Your task to perform on an android device: change timer sound Image 0: 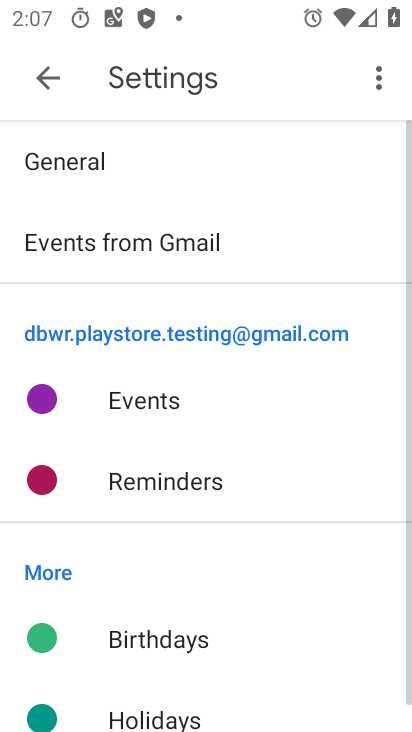
Step 0: press back button
Your task to perform on an android device: change timer sound Image 1: 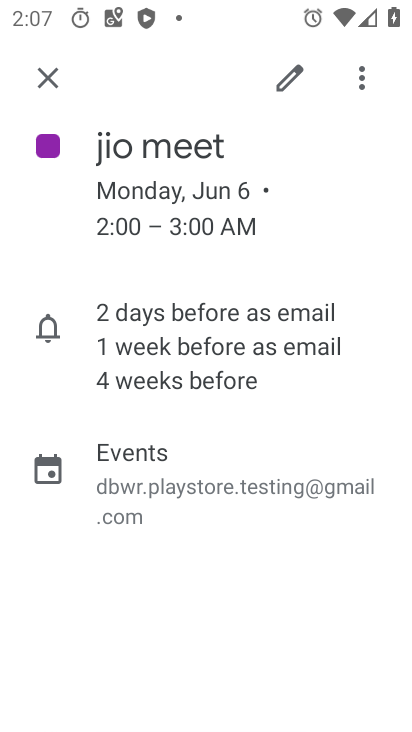
Step 1: press back button
Your task to perform on an android device: change timer sound Image 2: 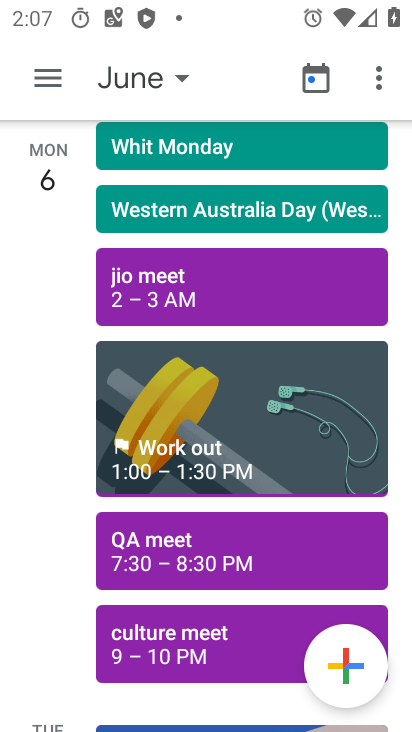
Step 2: press home button
Your task to perform on an android device: change timer sound Image 3: 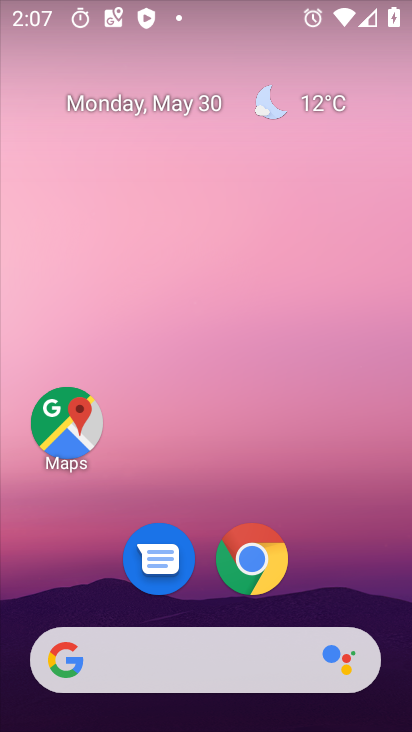
Step 3: drag from (218, 443) to (331, 19)
Your task to perform on an android device: change timer sound Image 4: 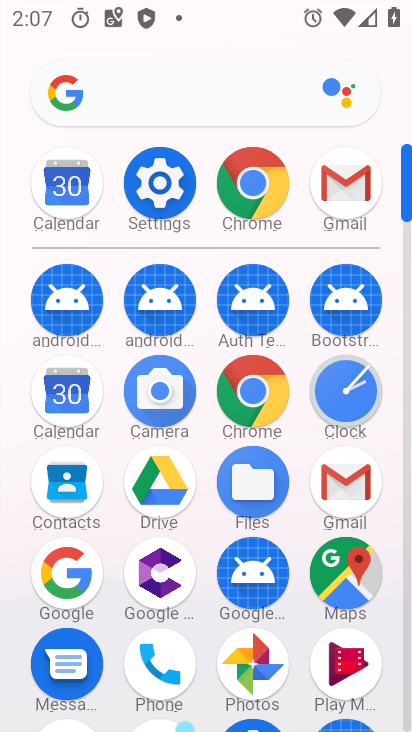
Step 4: click (351, 377)
Your task to perform on an android device: change timer sound Image 5: 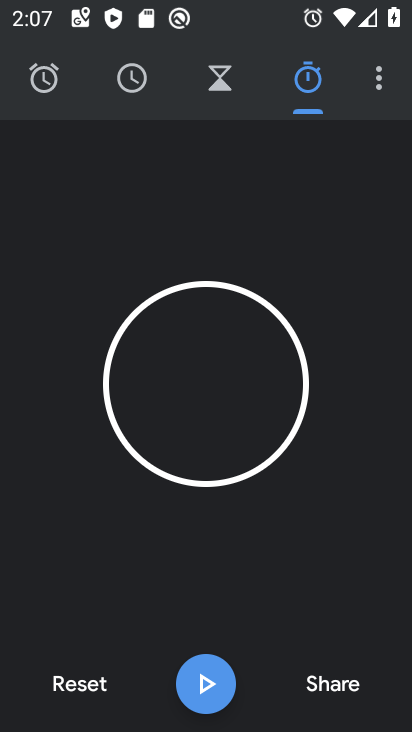
Step 5: click (227, 64)
Your task to perform on an android device: change timer sound Image 6: 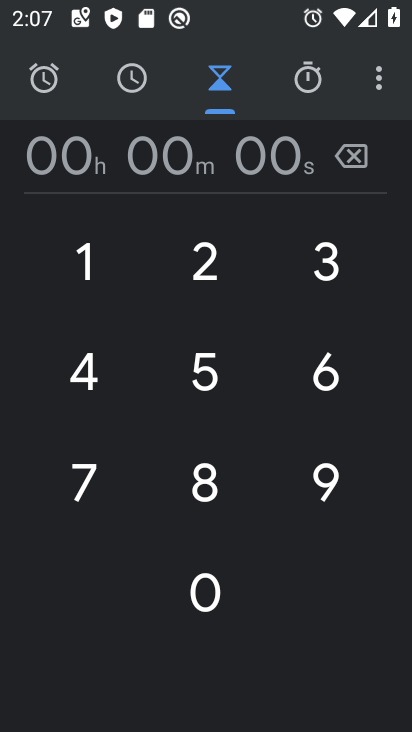
Step 6: click (375, 71)
Your task to perform on an android device: change timer sound Image 7: 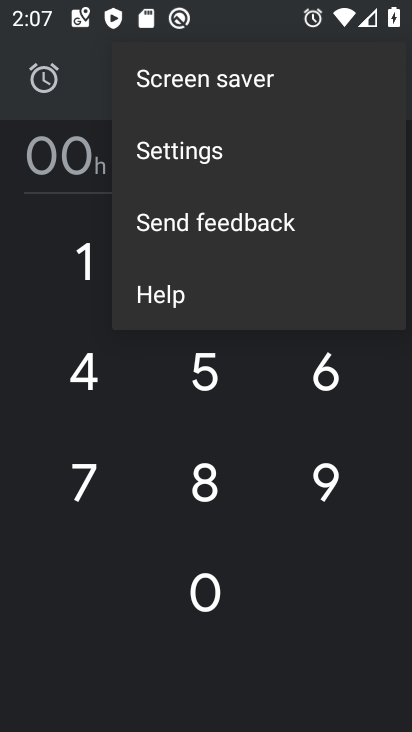
Step 7: click (226, 153)
Your task to perform on an android device: change timer sound Image 8: 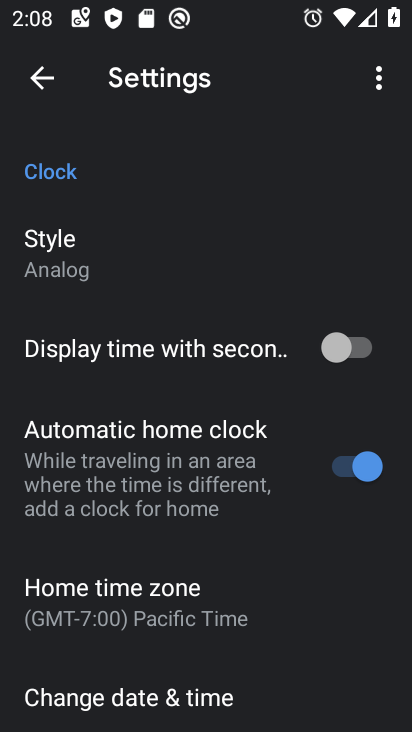
Step 8: drag from (197, 672) to (306, 121)
Your task to perform on an android device: change timer sound Image 9: 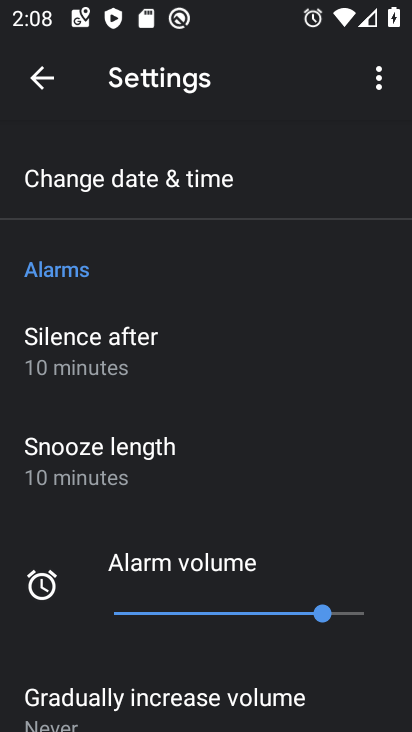
Step 9: drag from (158, 639) to (272, 115)
Your task to perform on an android device: change timer sound Image 10: 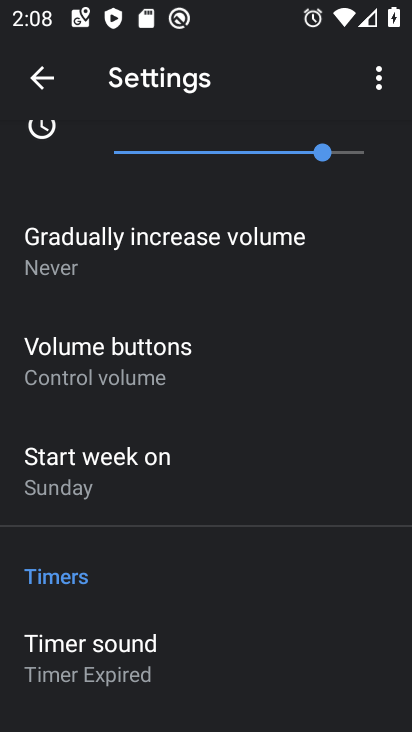
Step 10: click (147, 663)
Your task to perform on an android device: change timer sound Image 11: 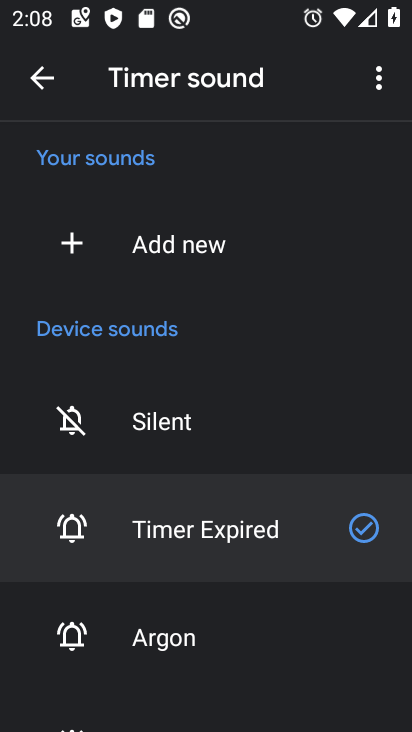
Step 11: click (173, 664)
Your task to perform on an android device: change timer sound Image 12: 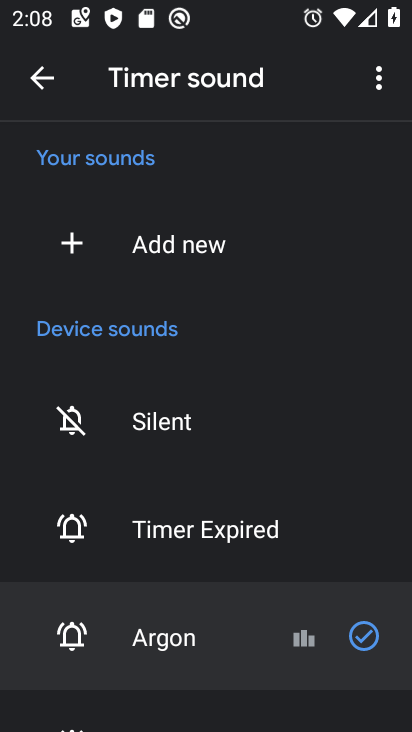
Step 12: task complete